Your task to perform on an android device: turn off location Image 0: 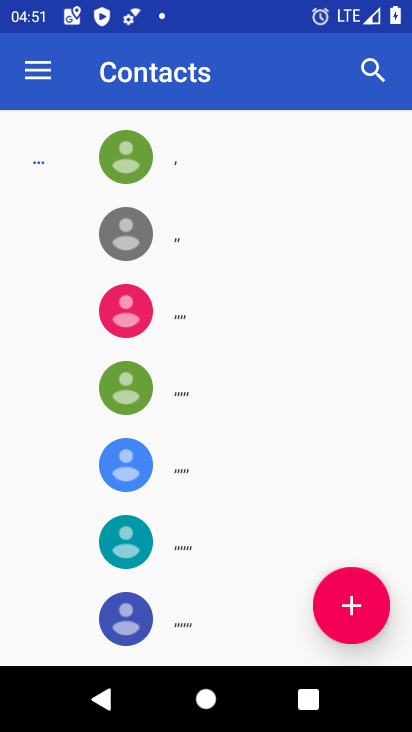
Step 0: press home button
Your task to perform on an android device: turn off location Image 1: 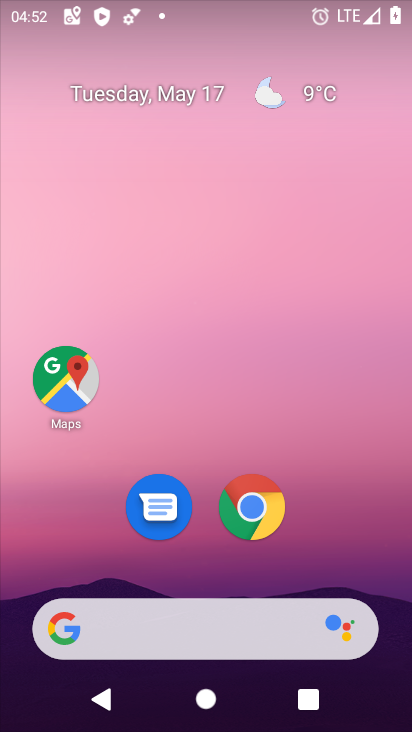
Step 1: drag from (324, 516) to (210, 2)
Your task to perform on an android device: turn off location Image 2: 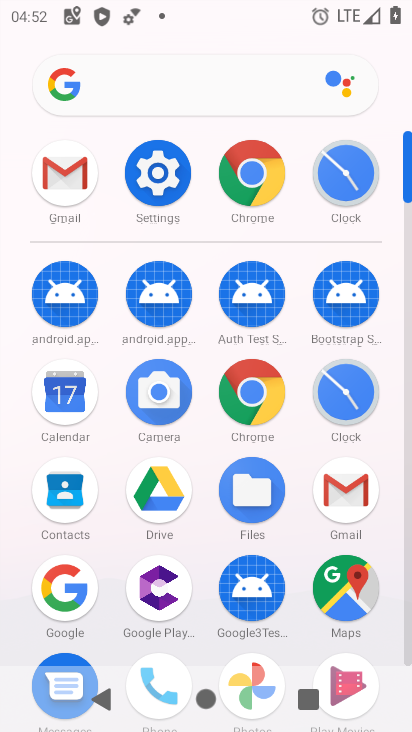
Step 2: click (158, 169)
Your task to perform on an android device: turn off location Image 3: 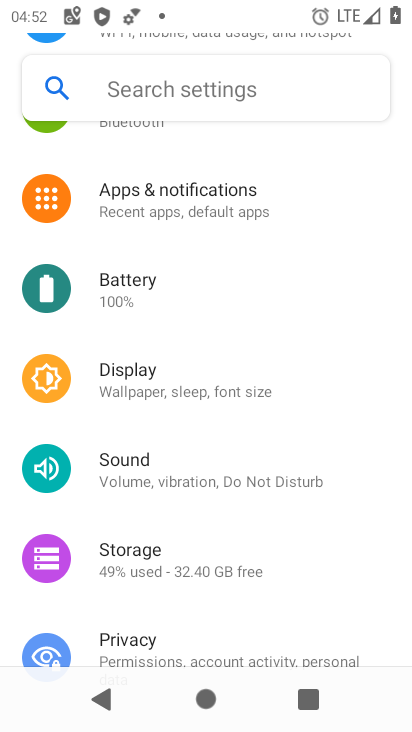
Step 3: drag from (224, 558) to (232, 184)
Your task to perform on an android device: turn off location Image 4: 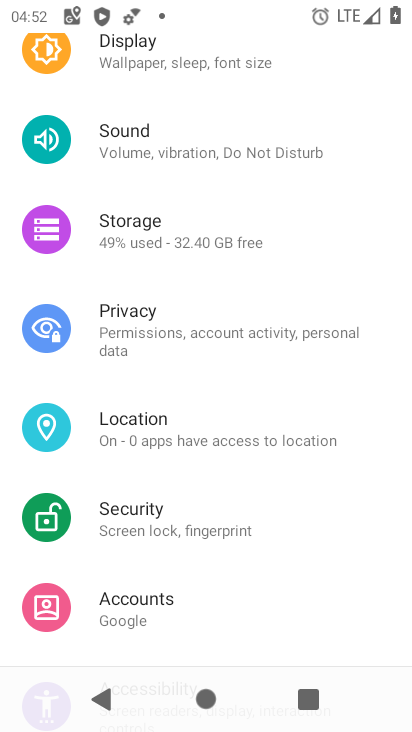
Step 4: click (223, 418)
Your task to perform on an android device: turn off location Image 5: 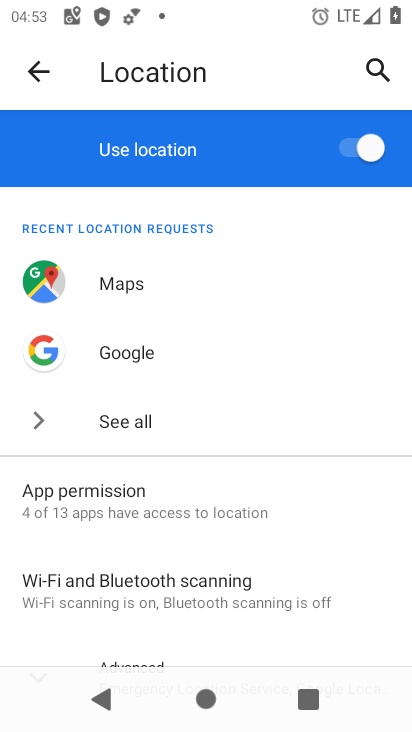
Step 5: click (331, 162)
Your task to perform on an android device: turn off location Image 6: 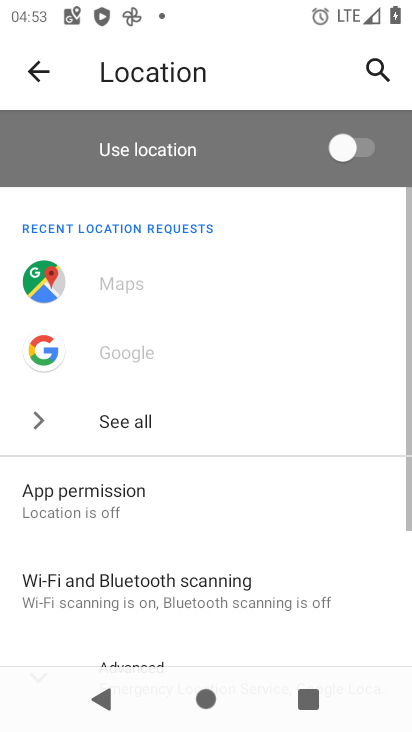
Step 6: task complete